Your task to perform on an android device: Show me recent news Image 0: 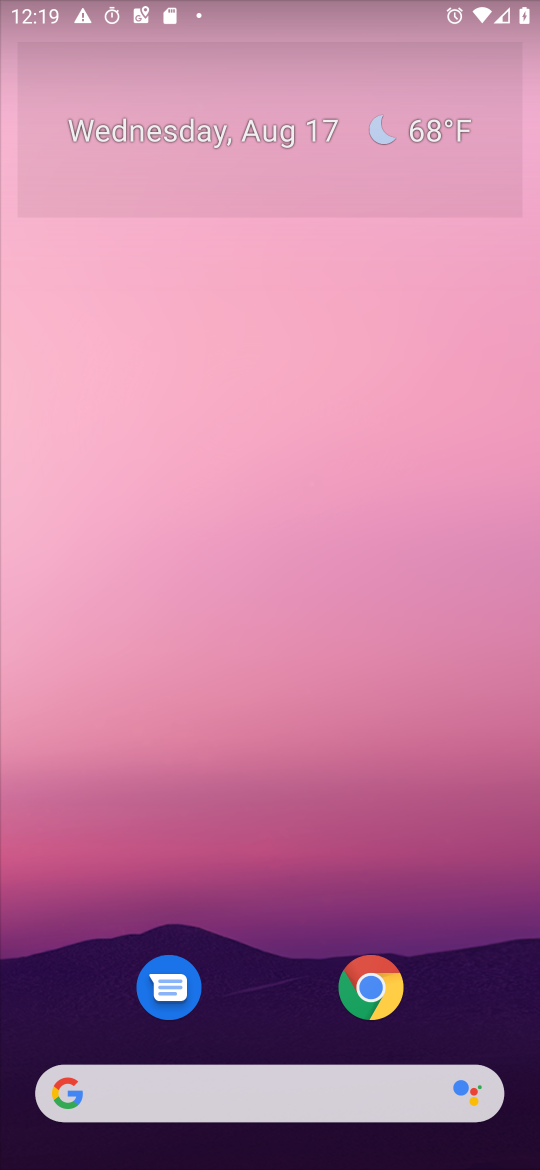
Step 0: click (155, 1100)
Your task to perform on an android device: Show me recent news Image 1: 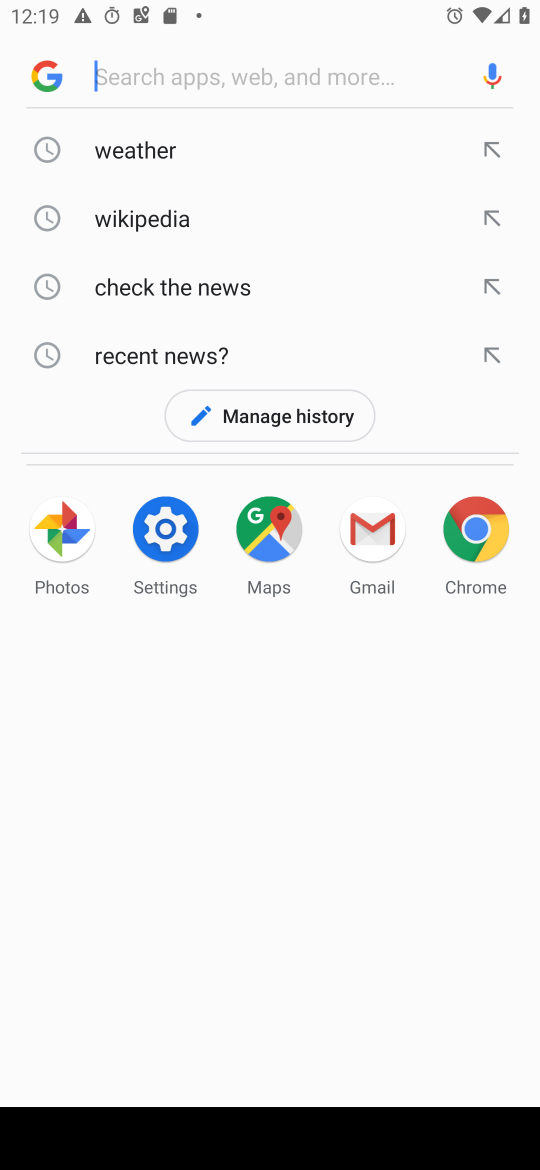
Step 1: type "recent news"
Your task to perform on an android device: Show me recent news Image 2: 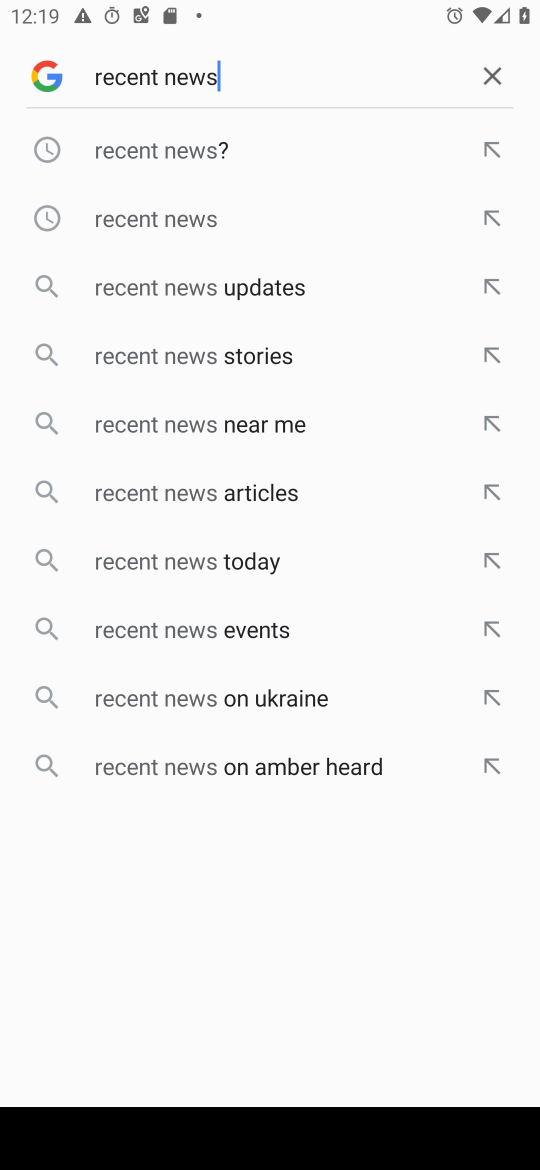
Step 2: click (188, 236)
Your task to perform on an android device: Show me recent news Image 3: 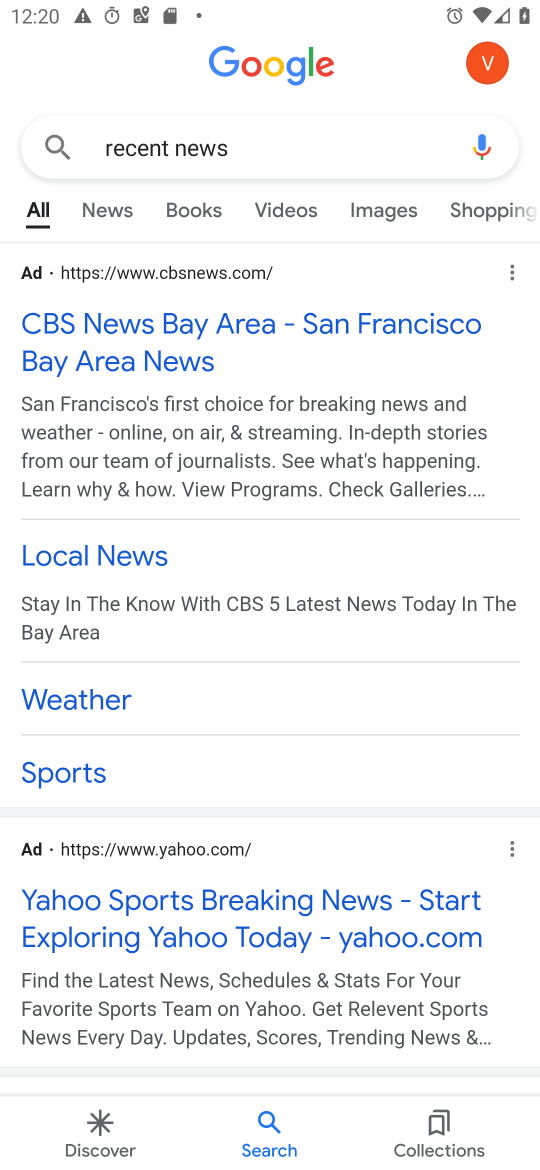
Step 3: task complete